Your task to perform on an android device: turn notification dots on Image 0: 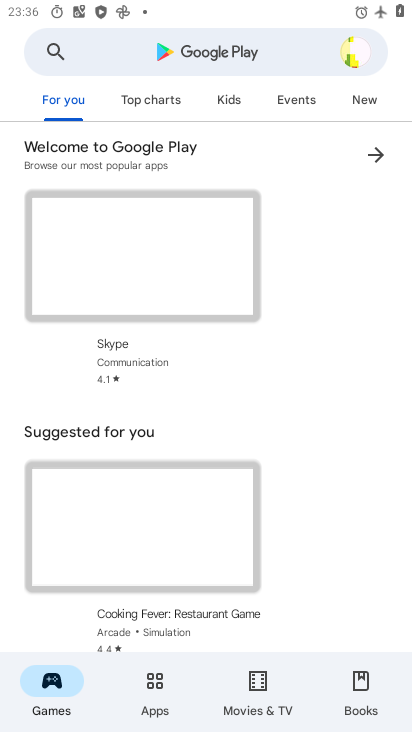
Step 0: press home button
Your task to perform on an android device: turn notification dots on Image 1: 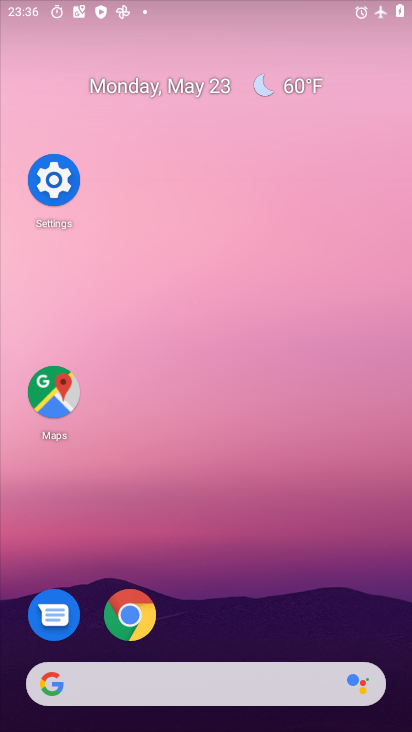
Step 1: drag from (253, 588) to (291, 93)
Your task to perform on an android device: turn notification dots on Image 2: 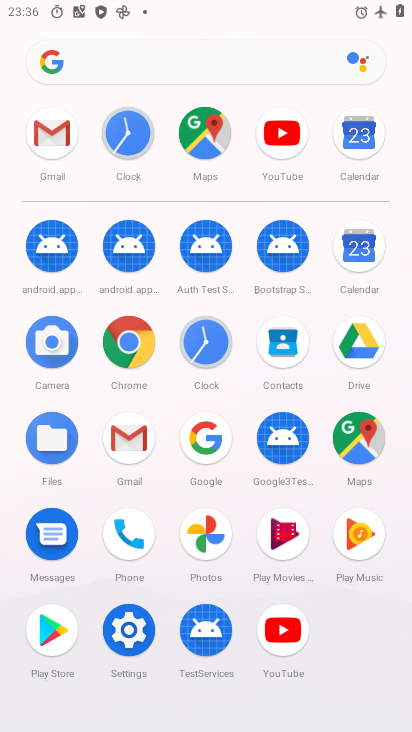
Step 2: click (130, 623)
Your task to perform on an android device: turn notification dots on Image 3: 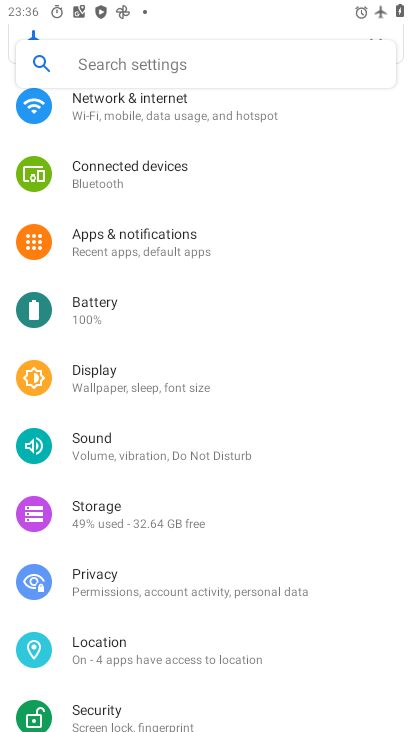
Step 3: click (162, 252)
Your task to perform on an android device: turn notification dots on Image 4: 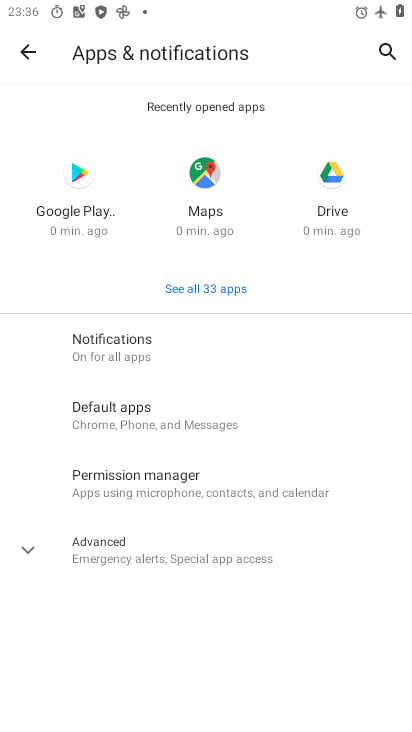
Step 4: click (101, 349)
Your task to perform on an android device: turn notification dots on Image 5: 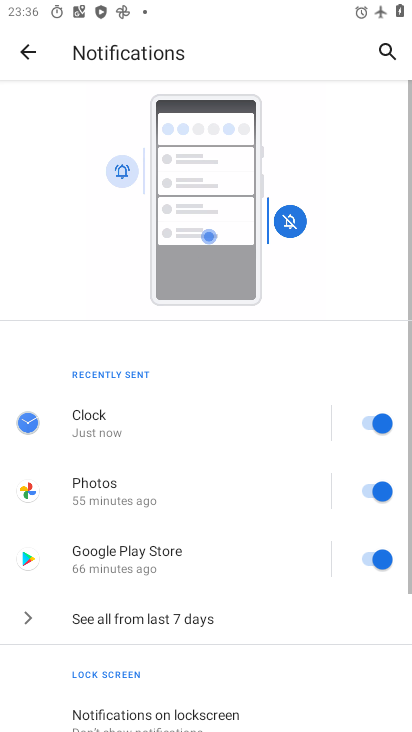
Step 5: drag from (215, 648) to (271, 142)
Your task to perform on an android device: turn notification dots on Image 6: 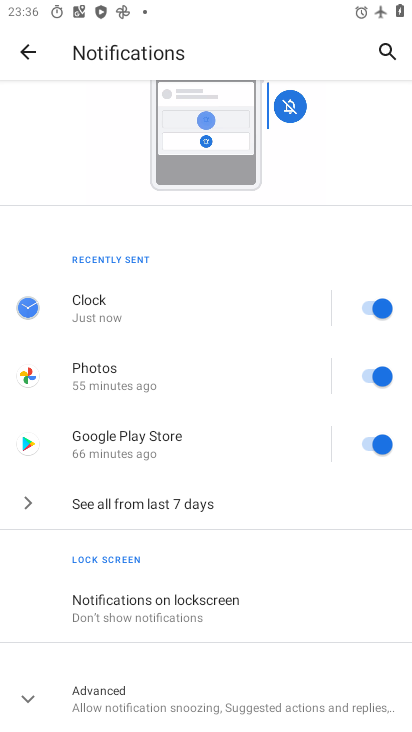
Step 6: click (121, 704)
Your task to perform on an android device: turn notification dots on Image 7: 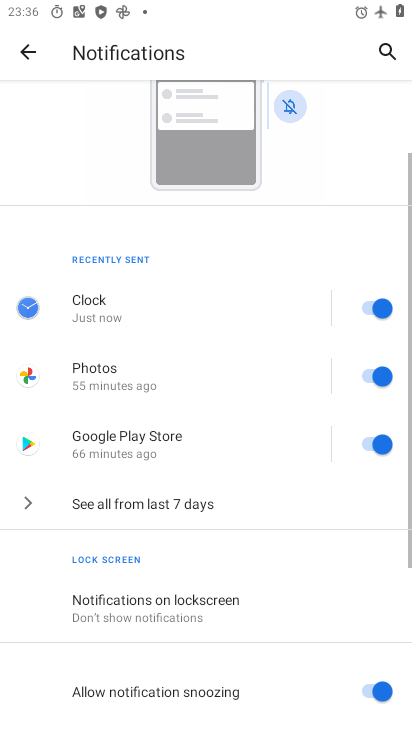
Step 7: drag from (256, 578) to (329, 123)
Your task to perform on an android device: turn notification dots on Image 8: 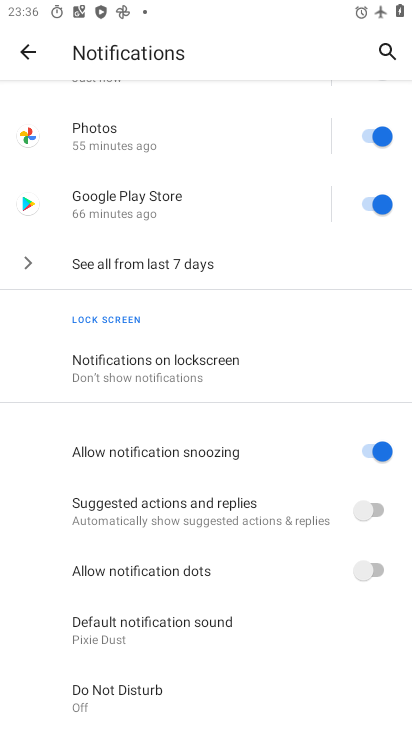
Step 8: click (360, 570)
Your task to perform on an android device: turn notification dots on Image 9: 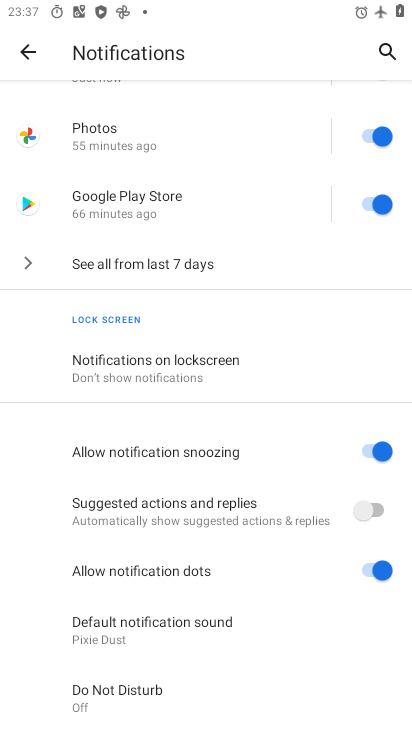
Step 9: task complete